Your task to perform on an android device: toggle notifications settings in the gmail app Image 0: 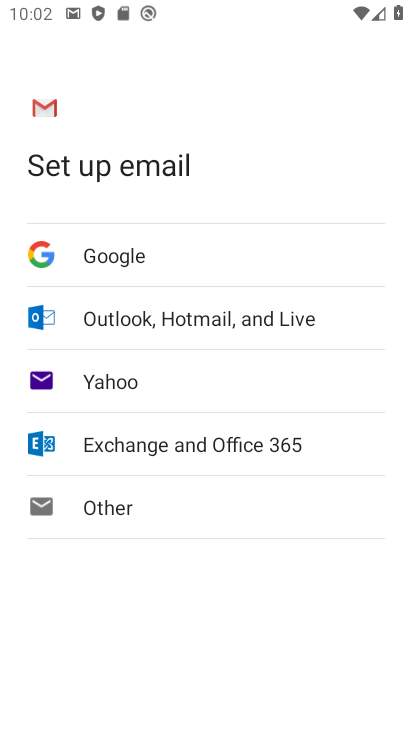
Step 0: press home button
Your task to perform on an android device: toggle notifications settings in the gmail app Image 1: 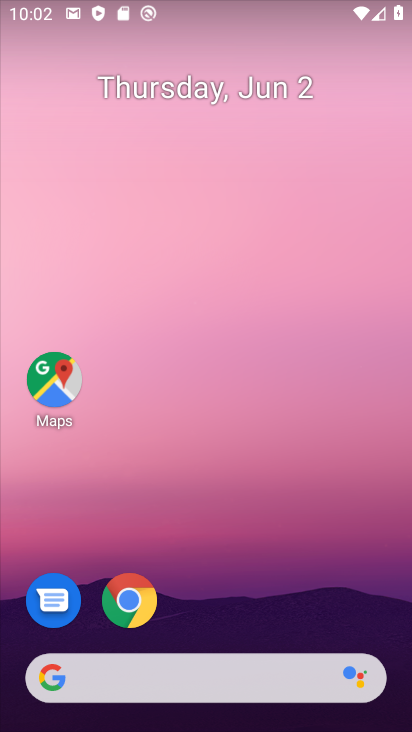
Step 1: drag from (136, 661) to (247, 131)
Your task to perform on an android device: toggle notifications settings in the gmail app Image 2: 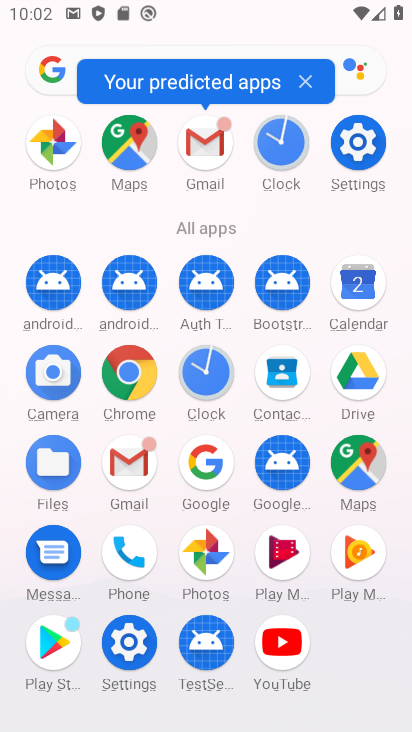
Step 2: click (202, 153)
Your task to perform on an android device: toggle notifications settings in the gmail app Image 3: 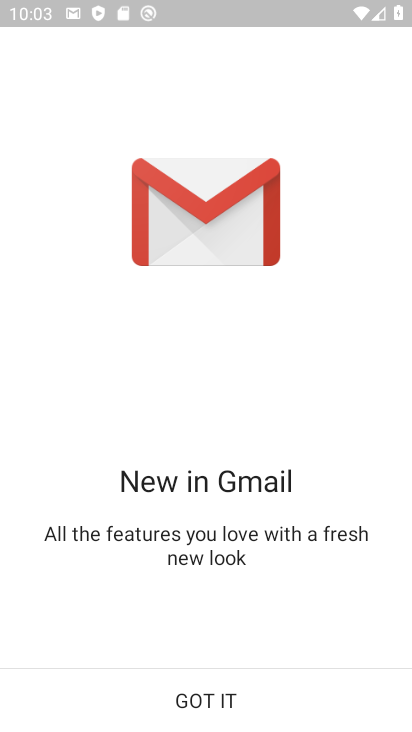
Step 3: click (213, 710)
Your task to perform on an android device: toggle notifications settings in the gmail app Image 4: 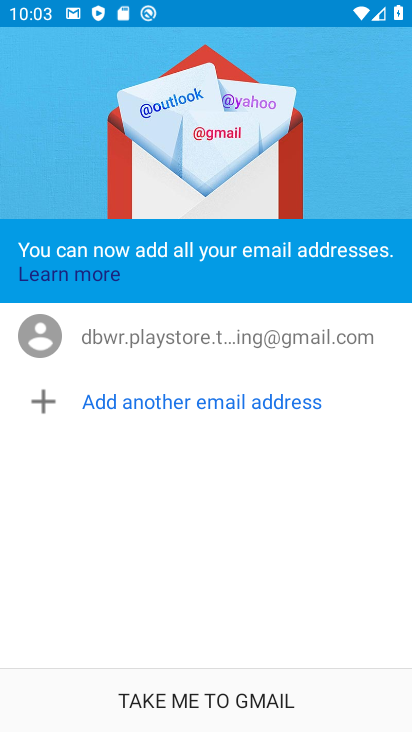
Step 4: click (217, 703)
Your task to perform on an android device: toggle notifications settings in the gmail app Image 5: 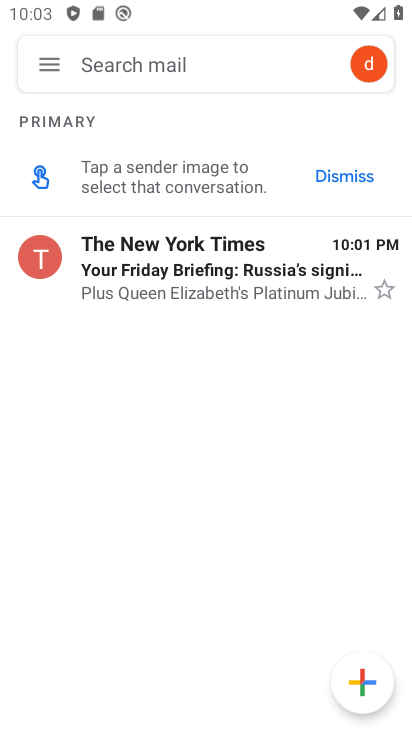
Step 5: click (54, 62)
Your task to perform on an android device: toggle notifications settings in the gmail app Image 6: 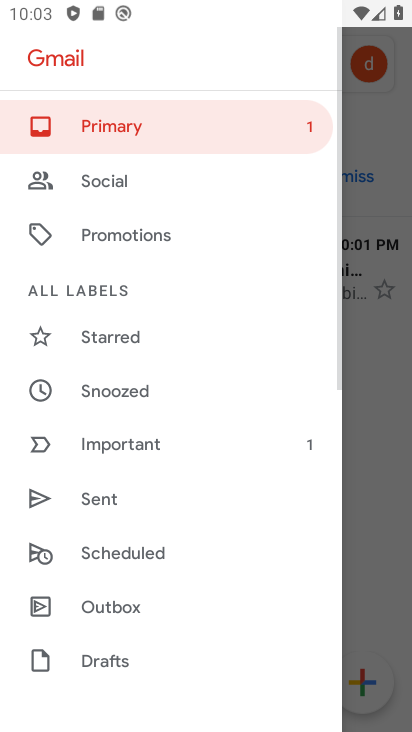
Step 6: drag from (169, 624) to (319, 210)
Your task to perform on an android device: toggle notifications settings in the gmail app Image 7: 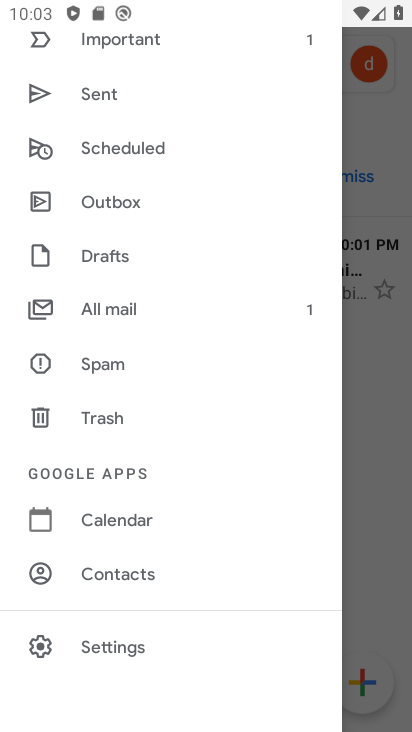
Step 7: click (130, 645)
Your task to perform on an android device: toggle notifications settings in the gmail app Image 8: 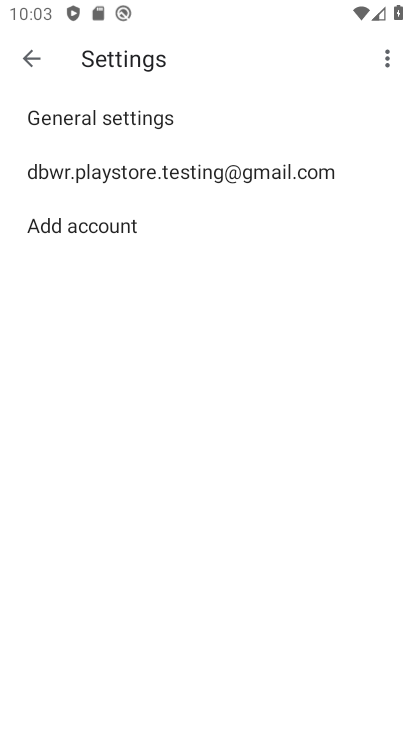
Step 8: click (237, 169)
Your task to perform on an android device: toggle notifications settings in the gmail app Image 9: 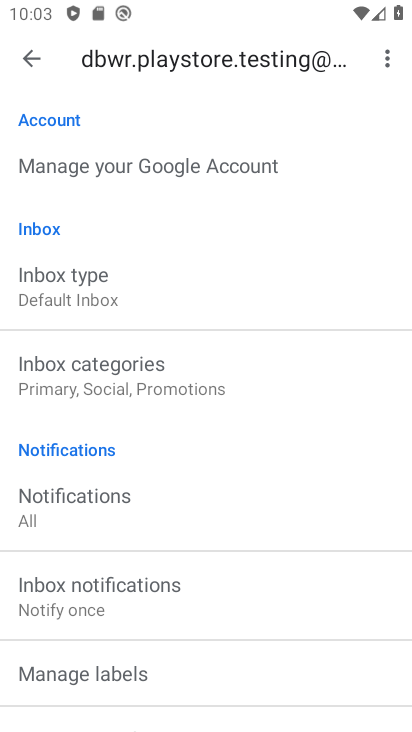
Step 9: click (62, 518)
Your task to perform on an android device: toggle notifications settings in the gmail app Image 10: 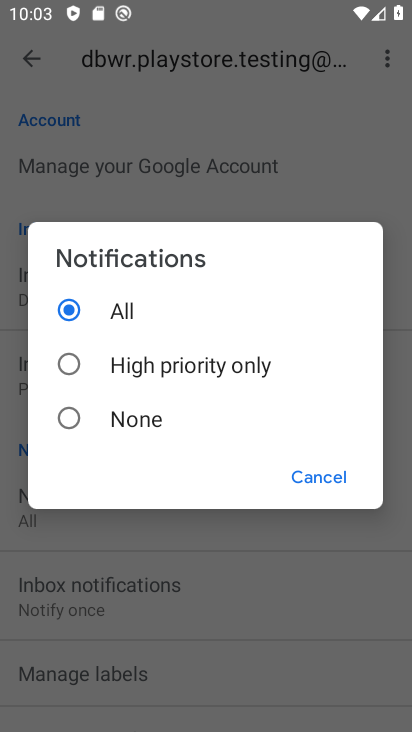
Step 10: click (66, 423)
Your task to perform on an android device: toggle notifications settings in the gmail app Image 11: 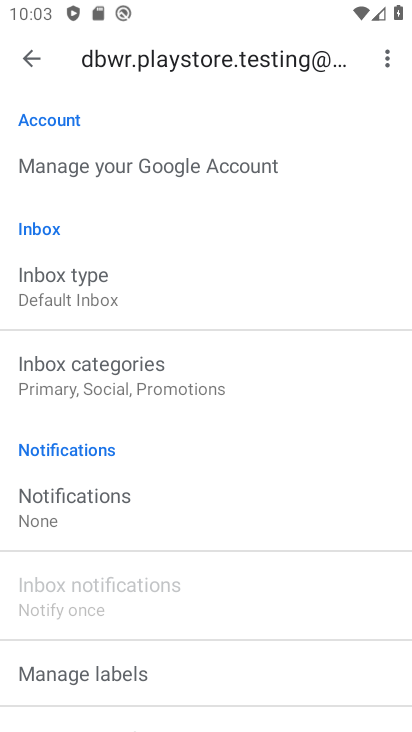
Step 11: task complete